Your task to perform on an android device: turn off wifi Image 0: 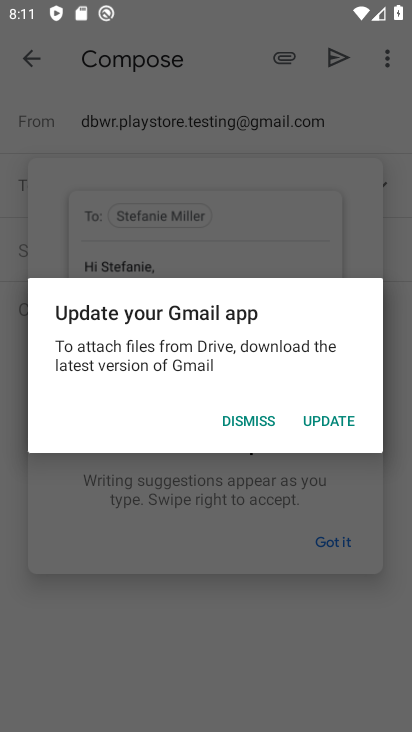
Step 0: press home button
Your task to perform on an android device: turn off wifi Image 1: 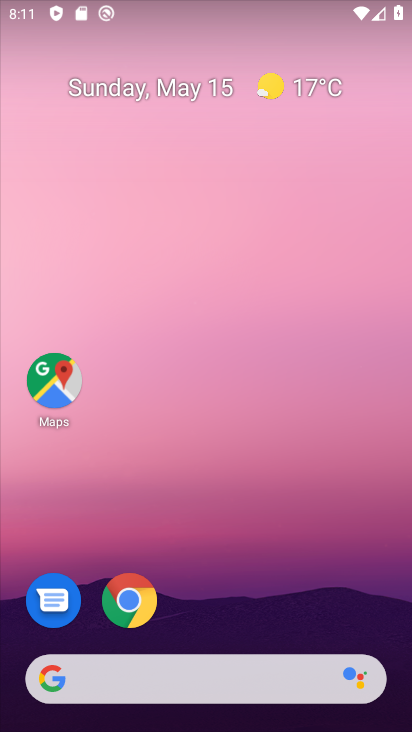
Step 1: drag from (239, 593) to (174, 132)
Your task to perform on an android device: turn off wifi Image 2: 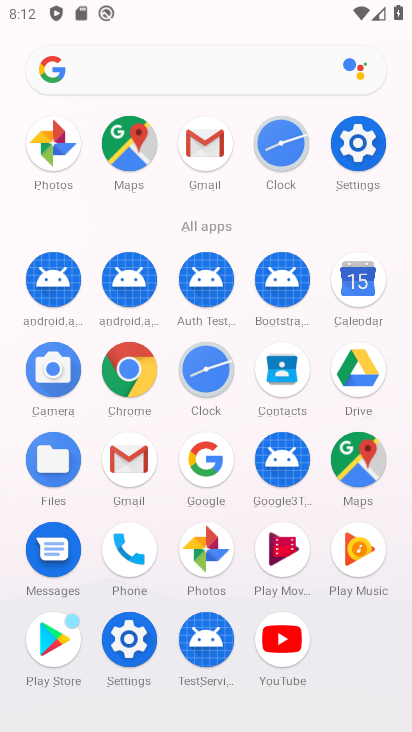
Step 2: click (358, 142)
Your task to perform on an android device: turn off wifi Image 3: 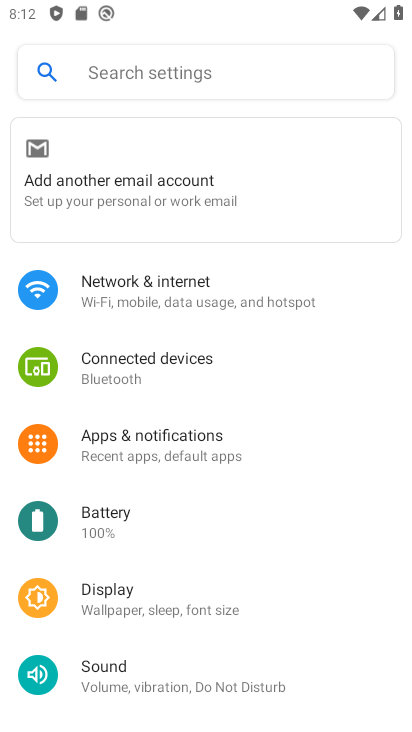
Step 3: click (139, 294)
Your task to perform on an android device: turn off wifi Image 4: 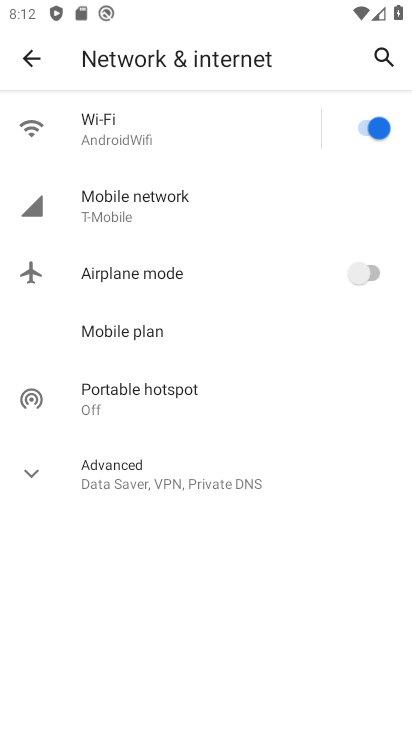
Step 4: click (375, 131)
Your task to perform on an android device: turn off wifi Image 5: 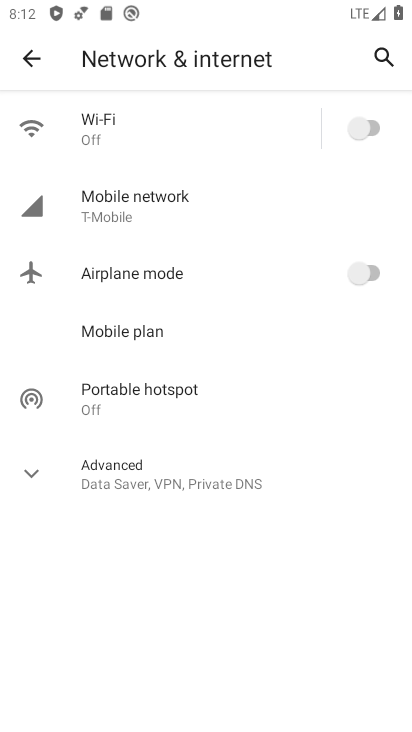
Step 5: task complete